Your task to perform on an android device: install app "Microsoft Authenticator" Image 0: 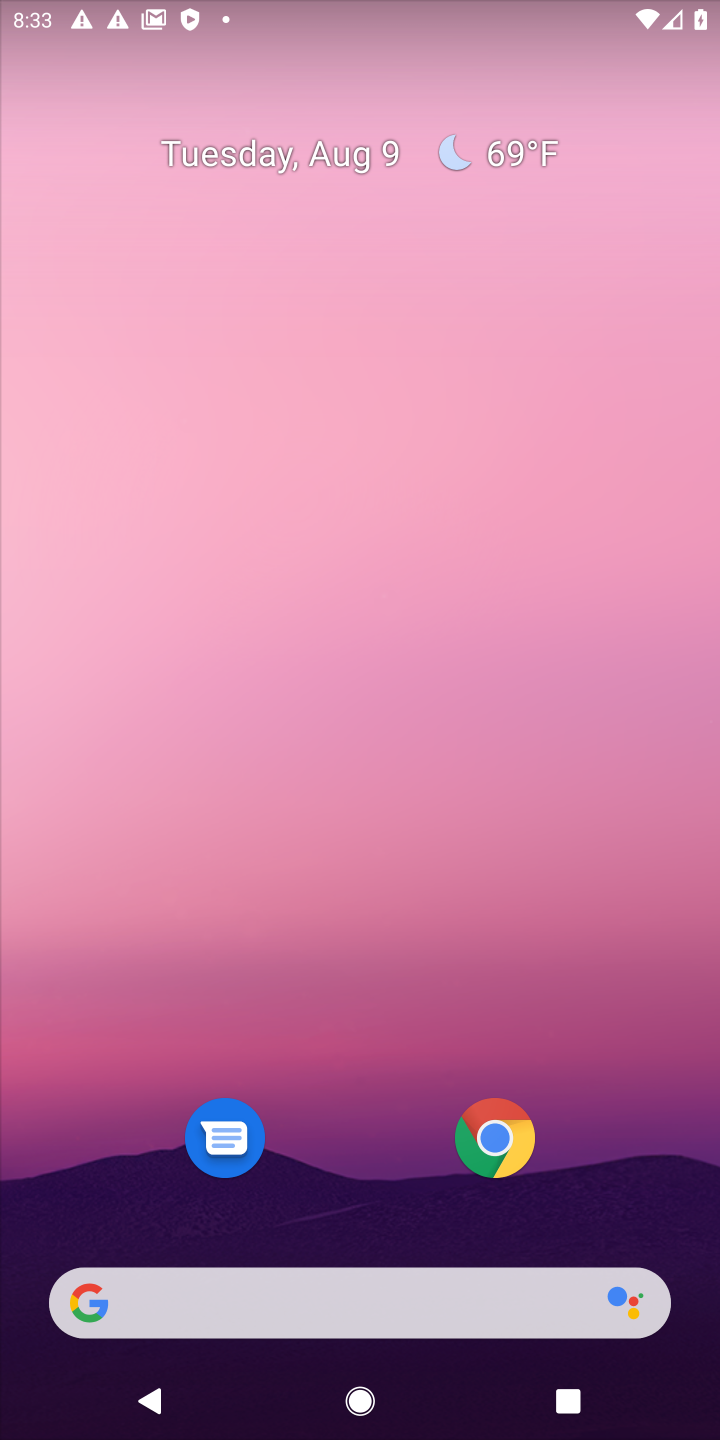
Step 0: drag from (342, 1249) to (69, 34)
Your task to perform on an android device: install app "Microsoft Authenticator" Image 1: 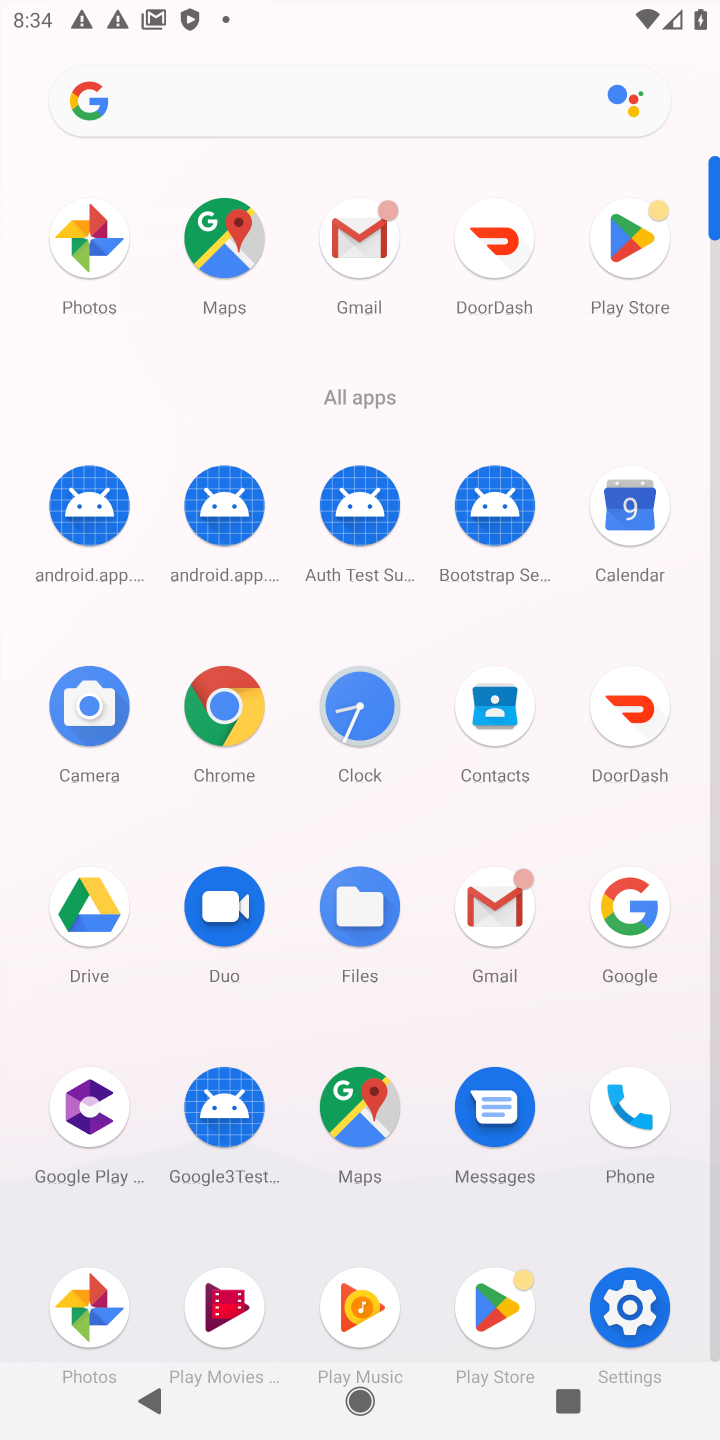
Step 1: click (599, 287)
Your task to perform on an android device: install app "Microsoft Authenticator" Image 2: 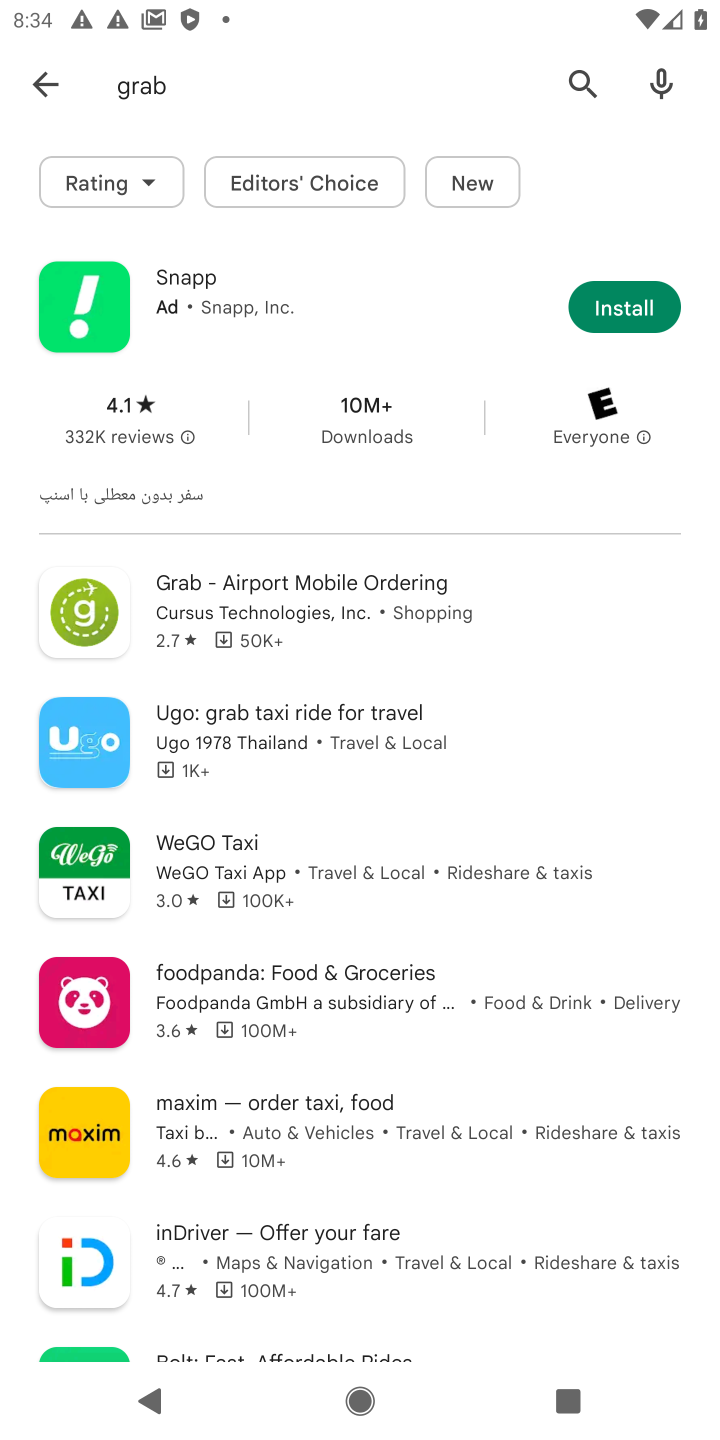
Step 2: click (576, 85)
Your task to perform on an android device: install app "Microsoft Authenticator" Image 3: 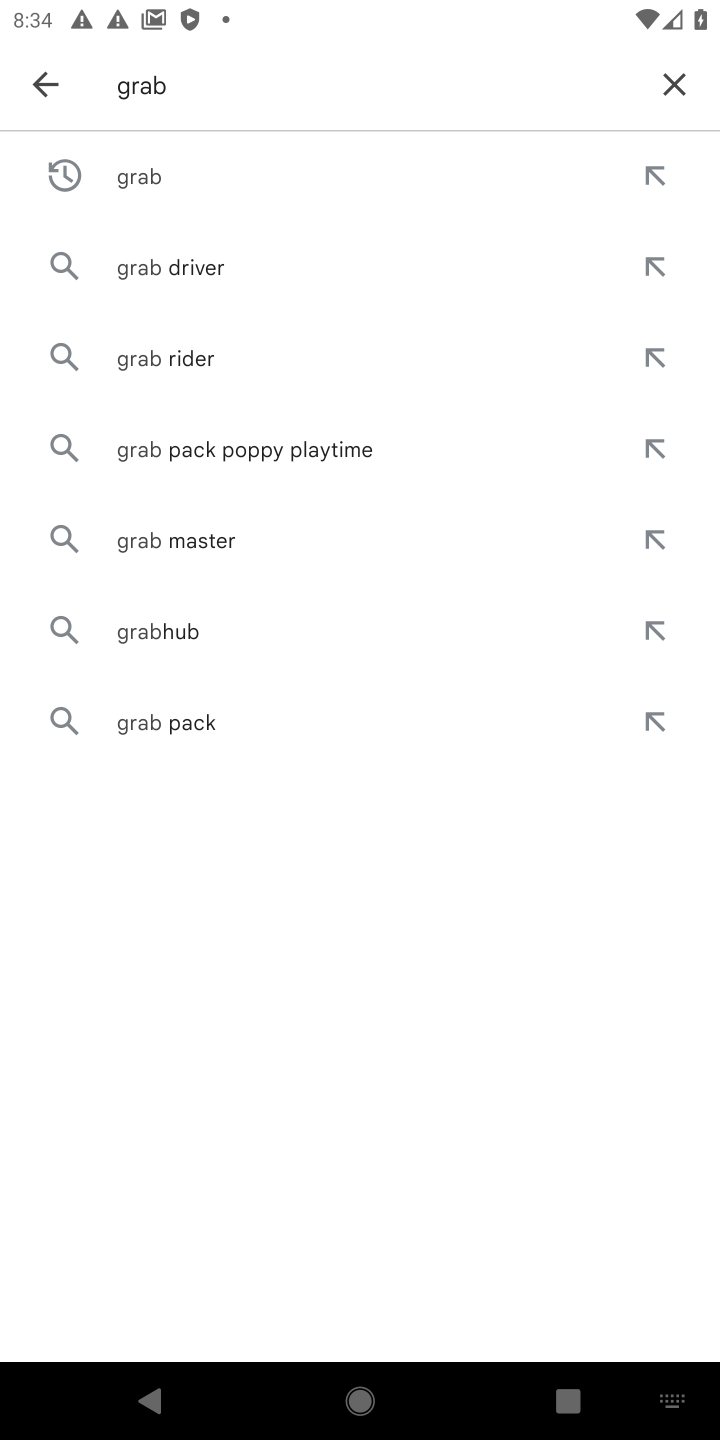
Step 3: click (682, 99)
Your task to perform on an android device: install app "Microsoft Authenticator" Image 4: 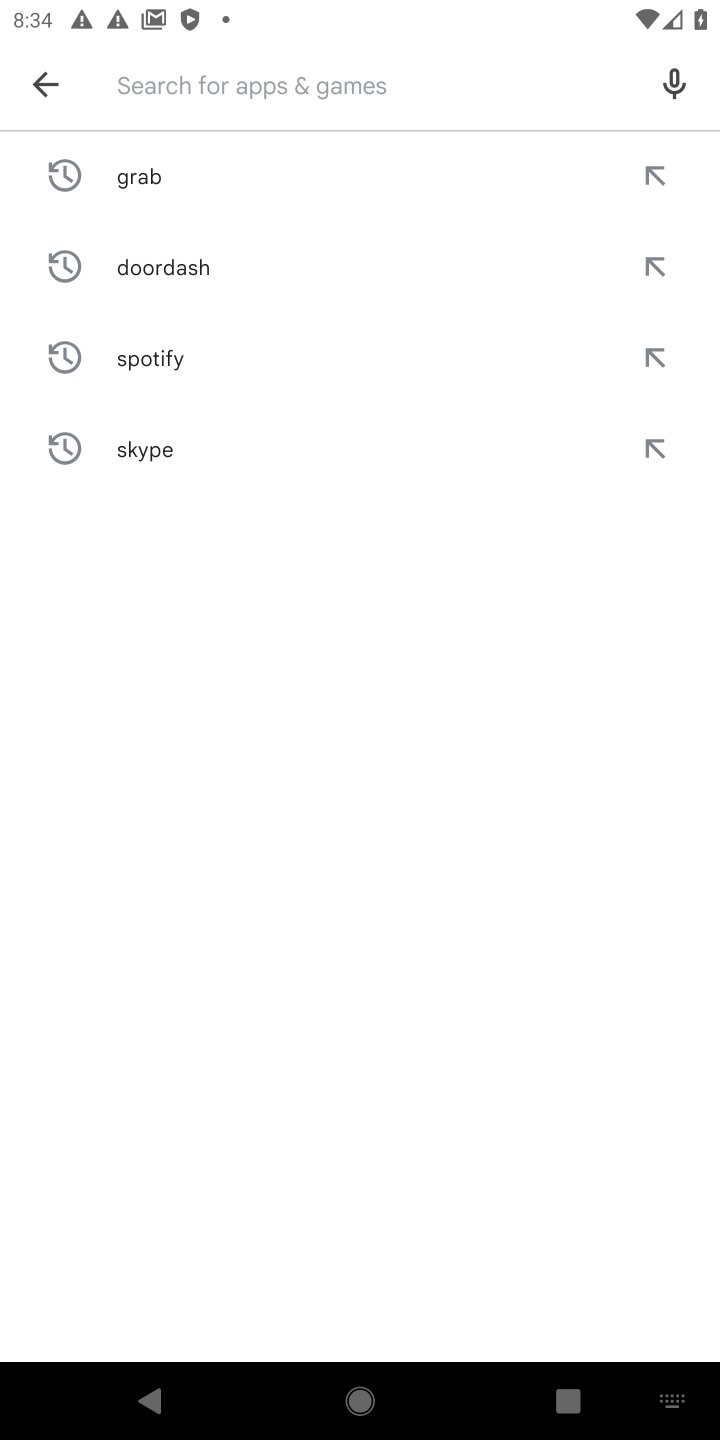
Step 4: type "microsoft authenticator"
Your task to perform on an android device: install app "Microsoft Authenticator" Image 5: 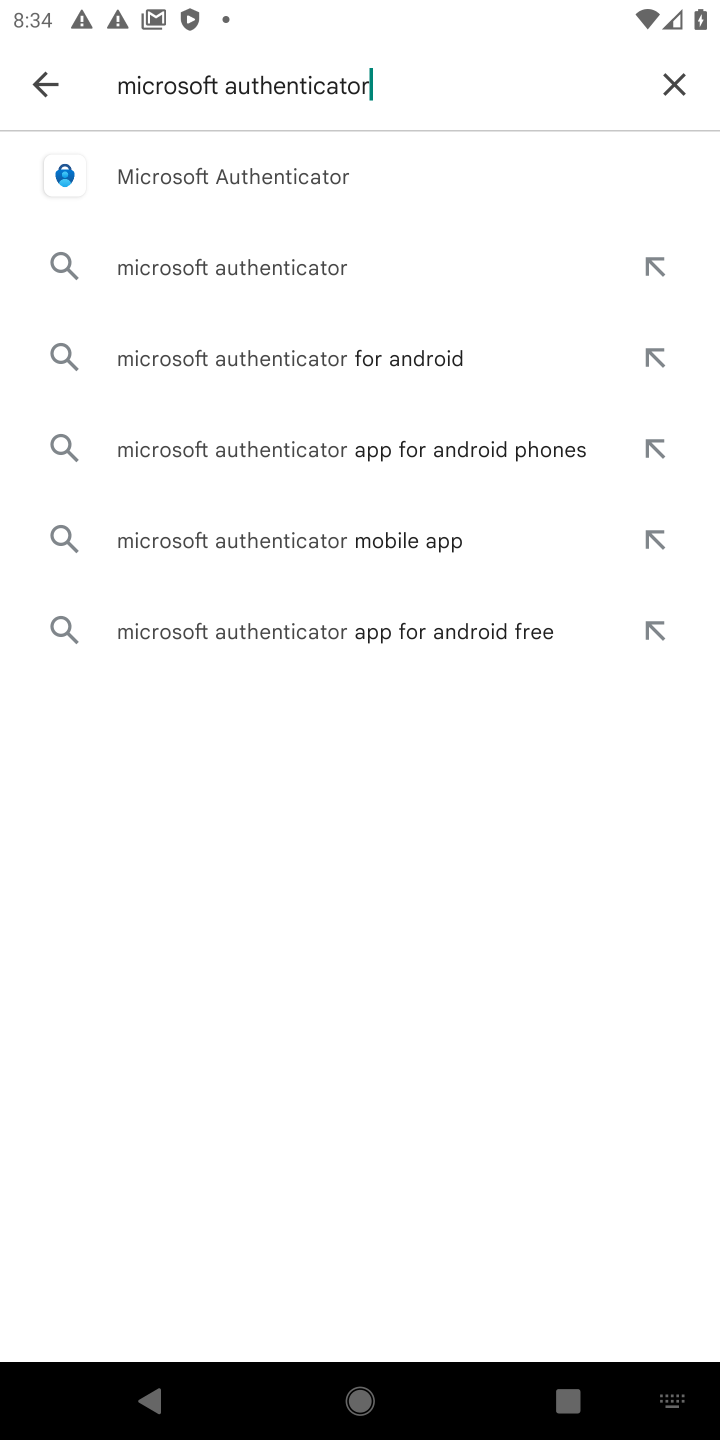
Step 5: click (304, 163)
Your task to perform on an android device: install app "Microsoft Authenticator" Image 6: 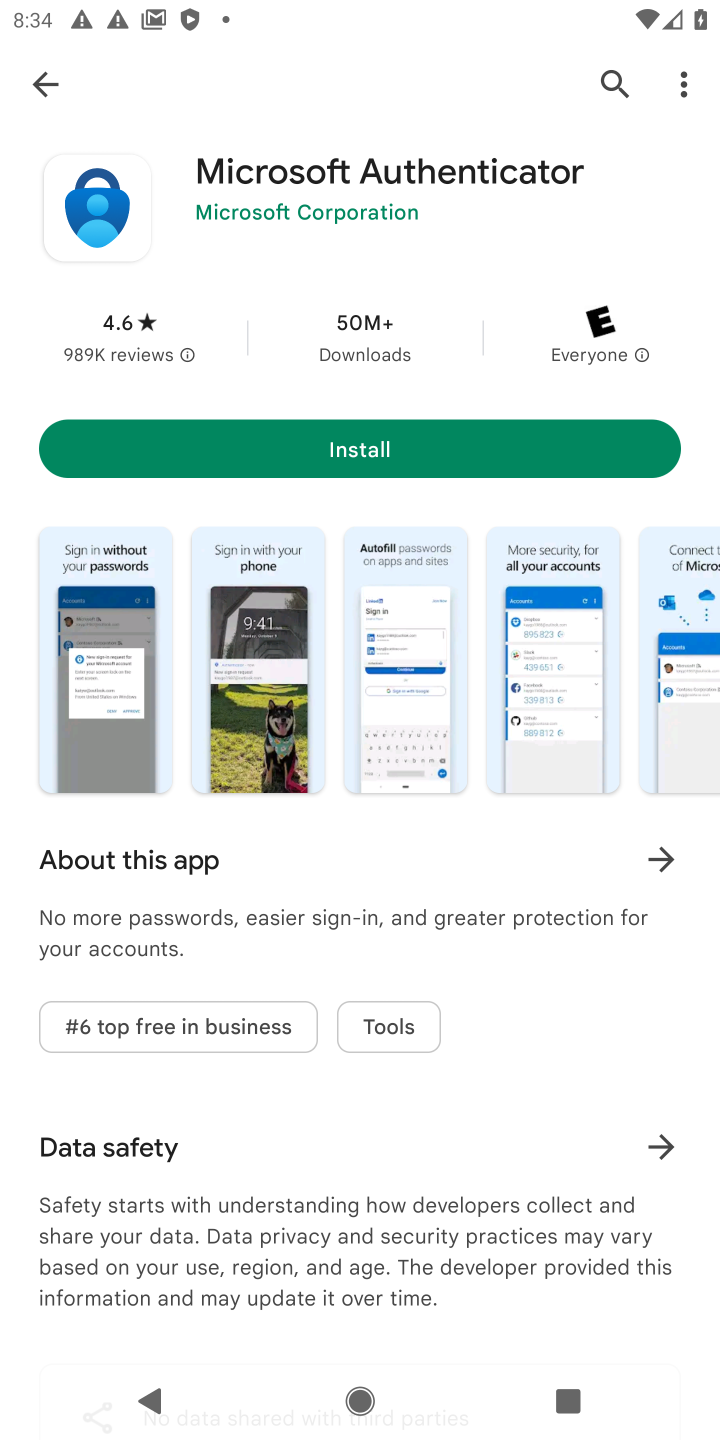
Step 6: click (440, 451)
Your task to perform on an android device: install app "Microsoft Authenticator" Image 7: 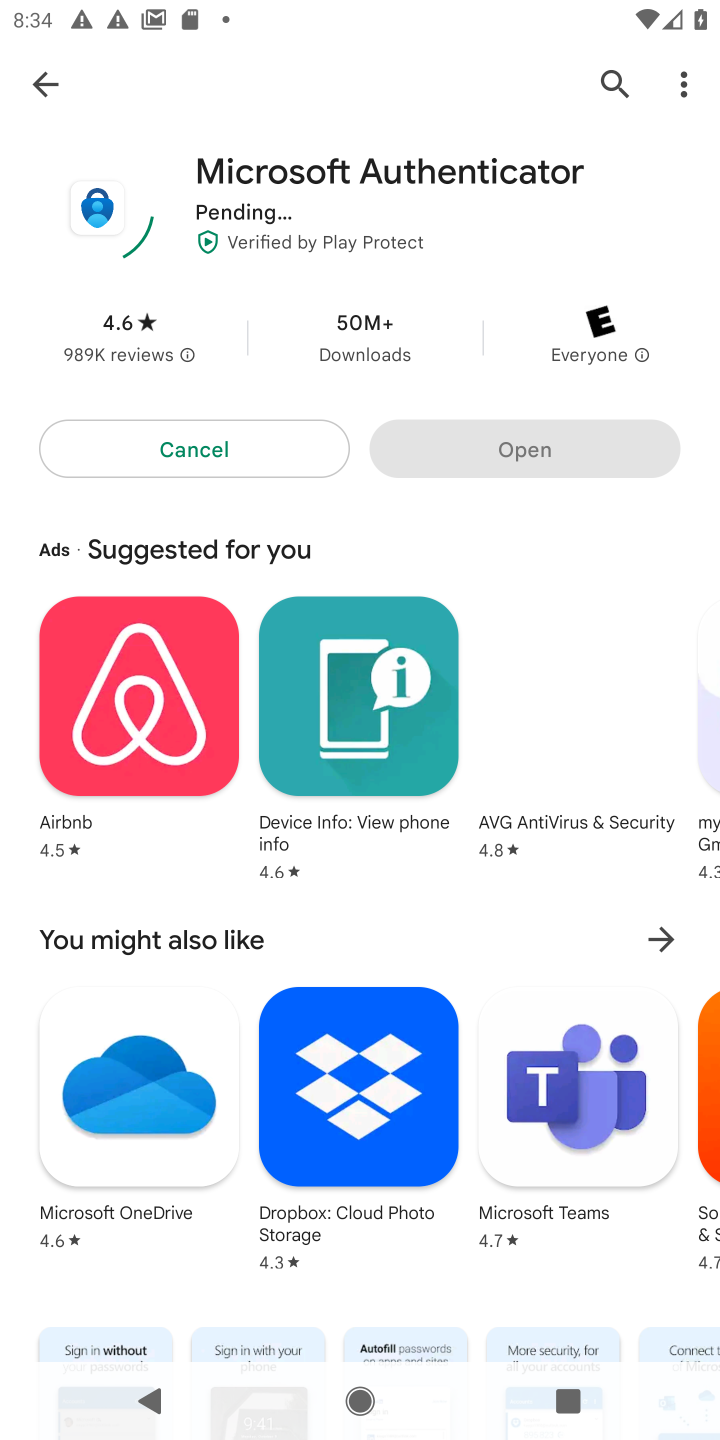
Step 7: task complete